Your task to perform on an android device: Open network settings Image 0: 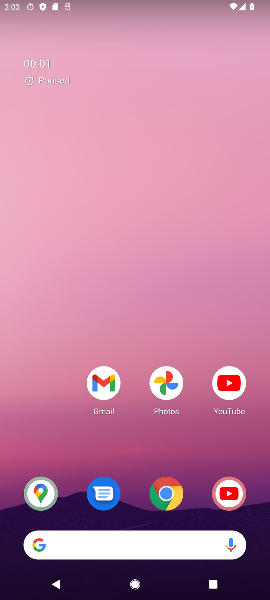
Step 0: drag from (35, 538) to (175, 202)
Your task to perform on an android device: Open network settings Image 1: 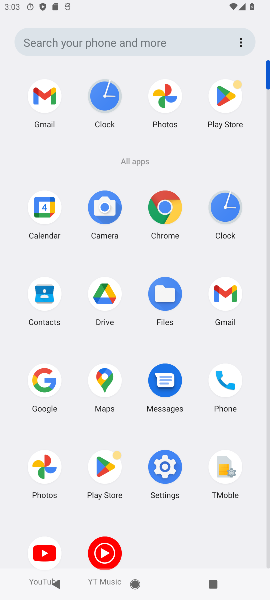
Step 1: click (160, 467)
Your task to perform on an android device: Open network settings Image 2: 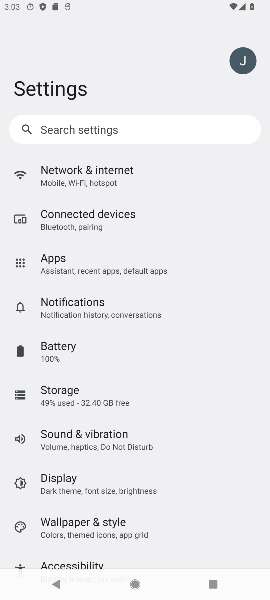
Step 2: click (96, 166)
Your task to perform on an android device: Open network settings Image 3: 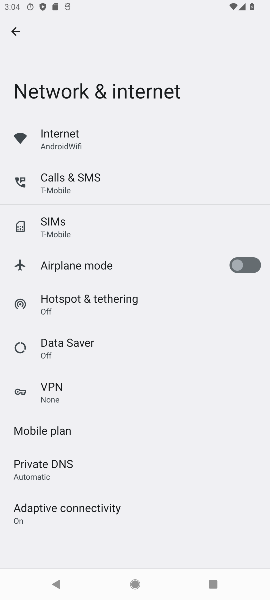
Step 3: task complete